Your task to perform on an android device: Open Yahoo.com Image 0: 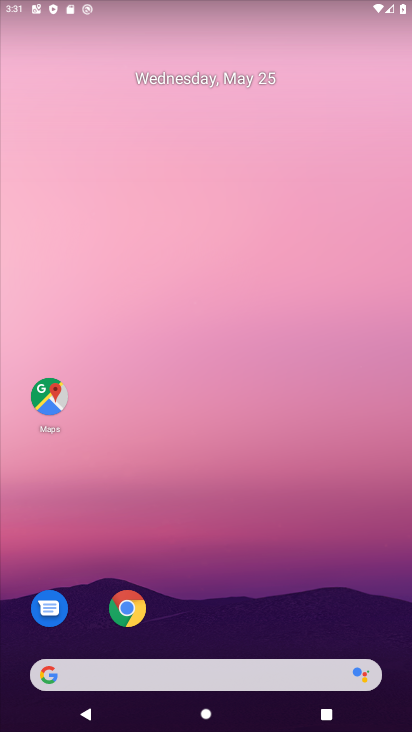
Step 0: click (134, 606)
Your task to perform on an android device: Open Yahoo.com Image 1: 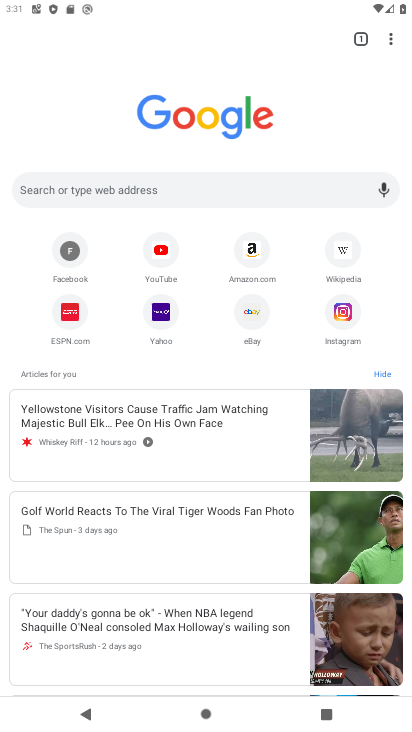
Step 1: click (160, 305)
Your task to perform on an android device: Open Yahoo.com Image 2: 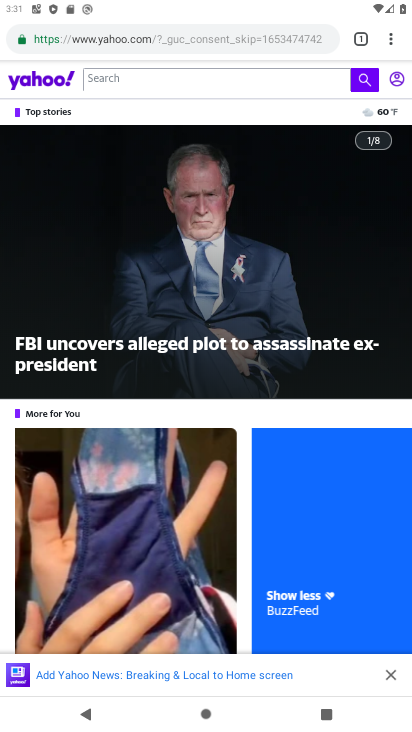
Step 2: task complete